Your task to perform on an android device: check data usage Image 0: 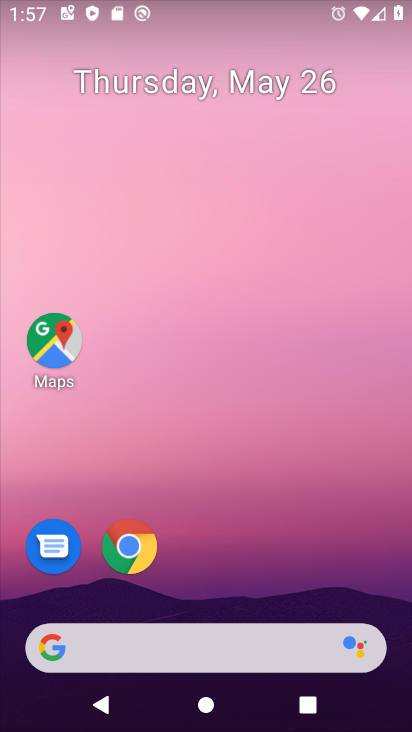
Step 0: drag from (393, 637) to (225, 38)
Your task to perform on an android device: check data usage Image 1: 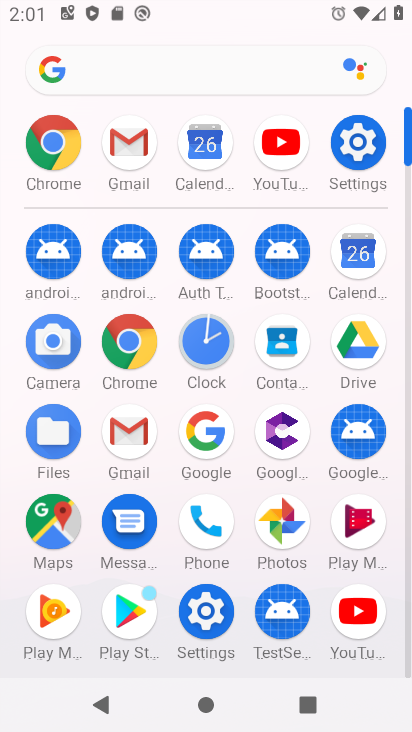
Step 1: click (199, 631)
Your task to perform on an android device: check data usage Image 2: 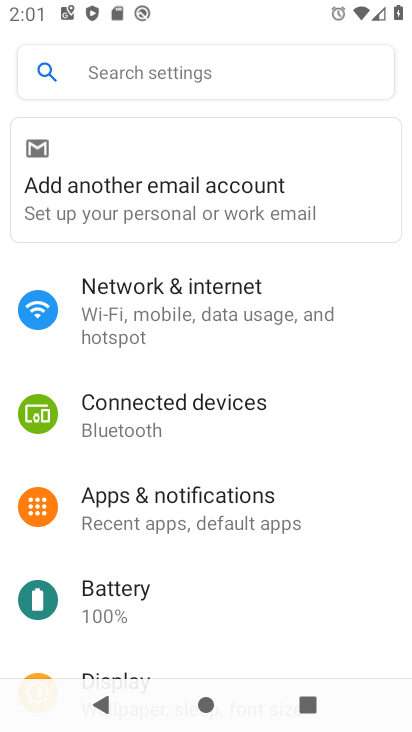
Step 2: click (183, 330)
Your task to perform on an android device: check data usage Image 3: 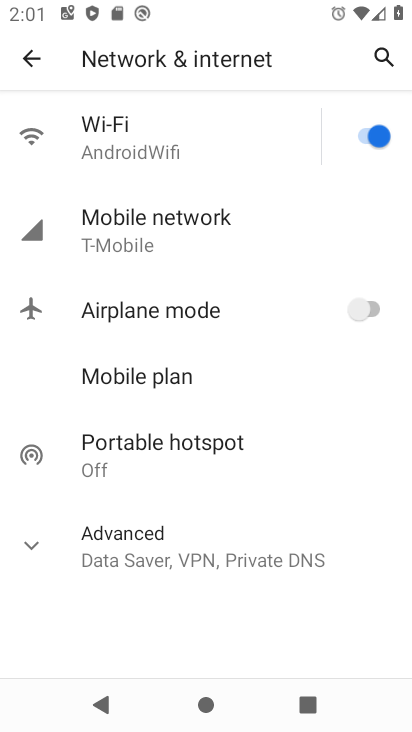
Step 3: click (187, 242)
Your task to perform on an android device: check data usage Image 4: 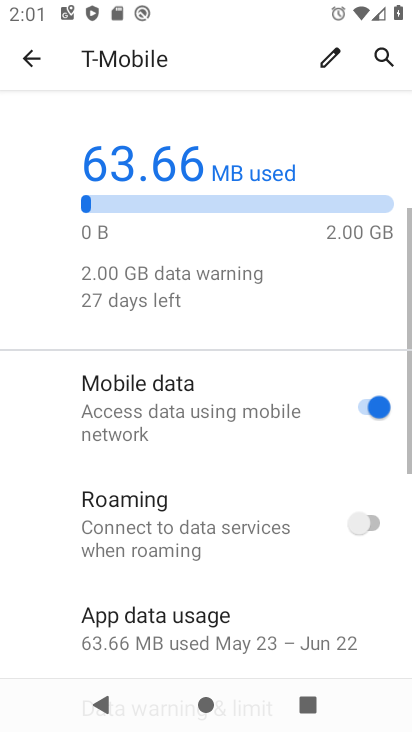
Step 4: click (161, 627)
Your task to perform on an android device: check data usage Image 5: 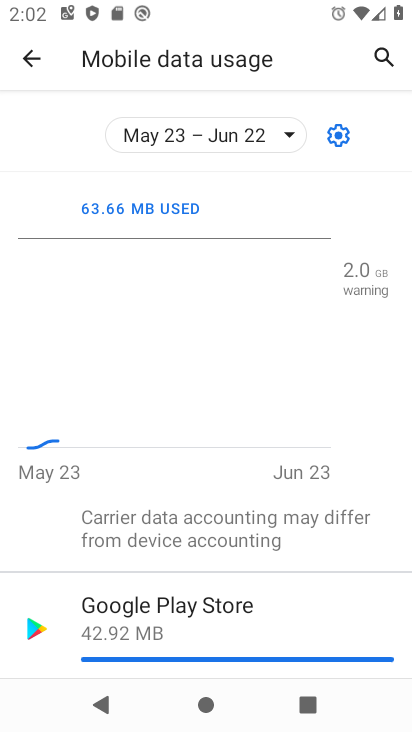
Step 5: task complete